Your task to perform on an android device: check battery use Image 0: 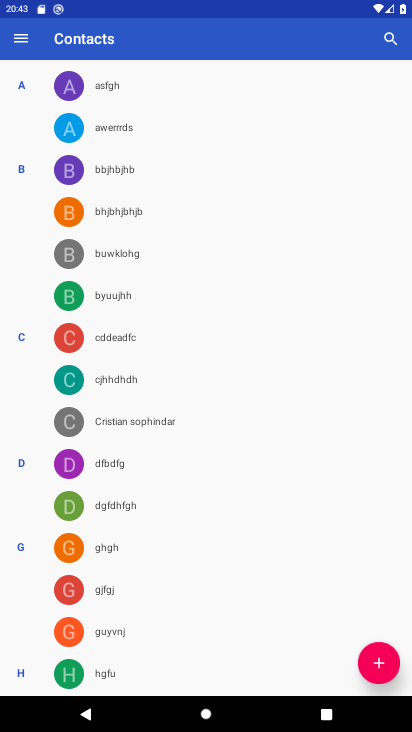
Step 0: press home button
Your task to perform on an android device: check battery use Image 1: 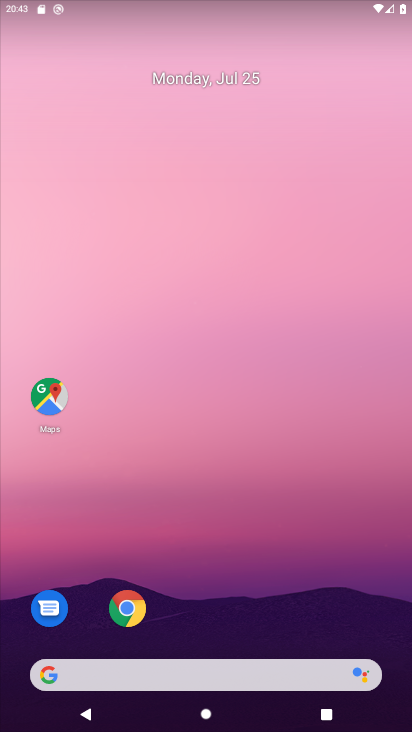
Step 1: drag from (268, 626) to (332, 21)
Your task to perform on an android device: check battery use Image 2: 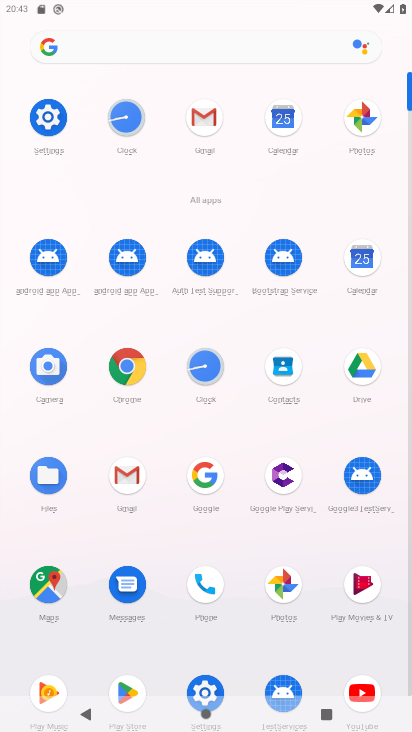
Step 2: click (46, 114)
Your task to perform on an android device: check battery use Image 3: 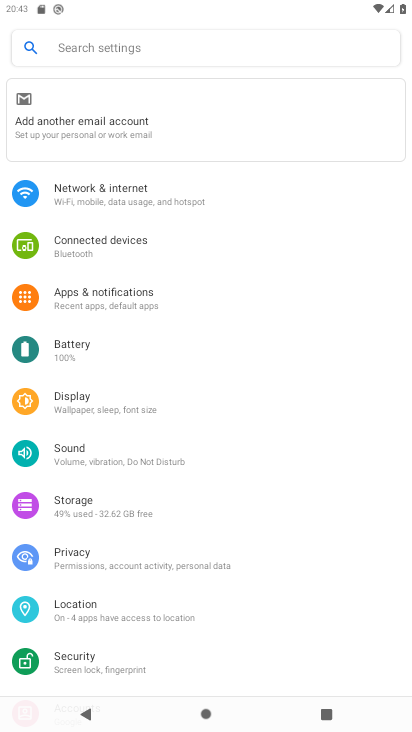
Step 3: click (79, 340)
Your task to perform on an android device: check battery use Image 4: 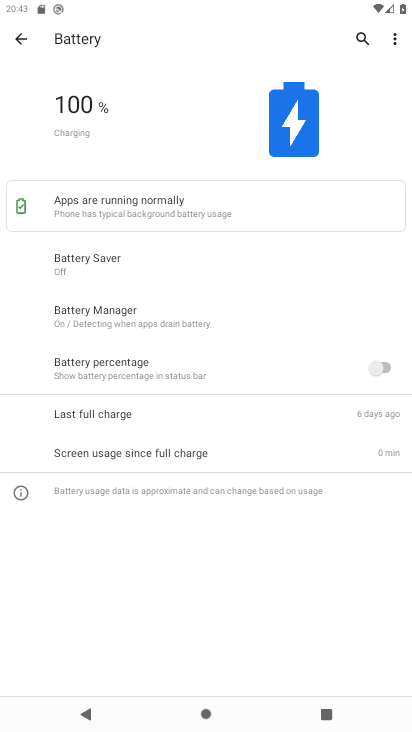
Step 4: task complete